Your task to perform on an android device: Go to eBay Image 0: 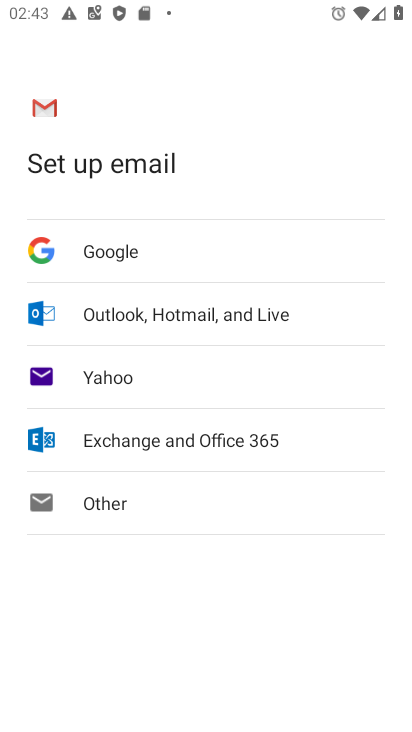
Step 0: press home button
Your task to perform on an android device: Go to eBay Image 1: 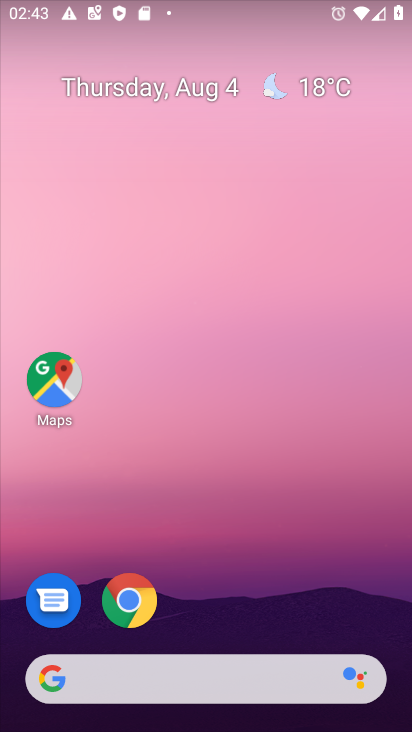
Step 1: click (132, 608)
Your task to perform on an android device: Go to eBay Image 2: 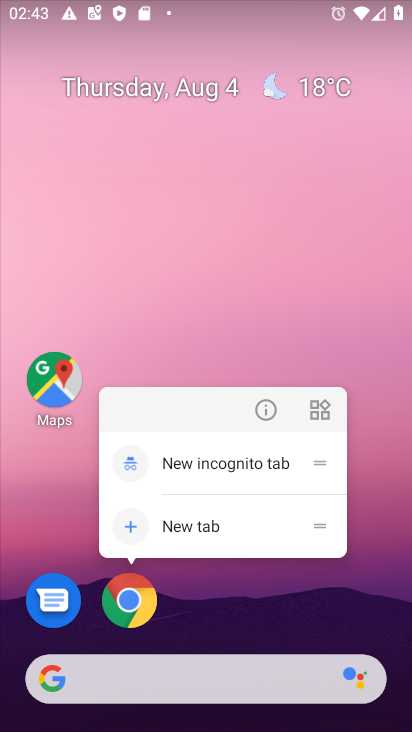
Step 2: click (128, 601)
Your task to perform on an android device: Go to eBay Image 3: 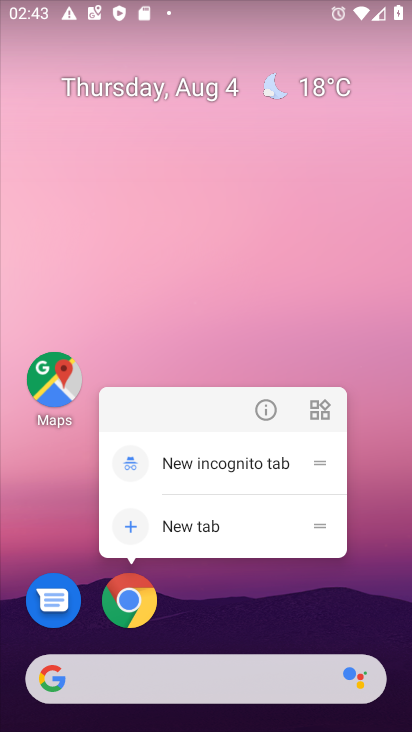
Step 3: click (131, 598)
Your task to perform on an android device: Go to eBay Image 4: 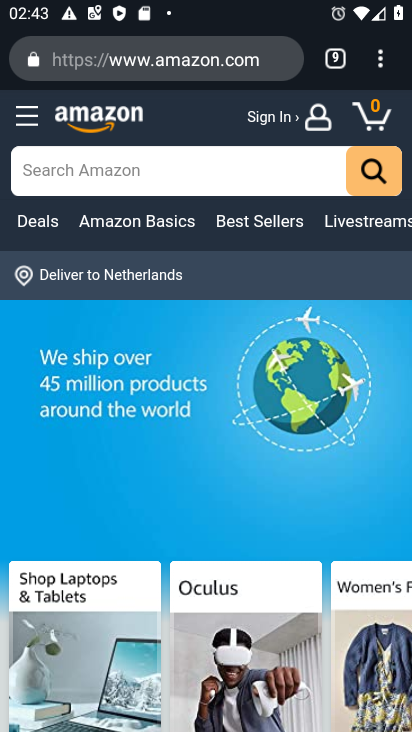
Step 4: drag from (383, 56) to (199, 188)
Your task to perform on an android device: Go to eBay Image 5: 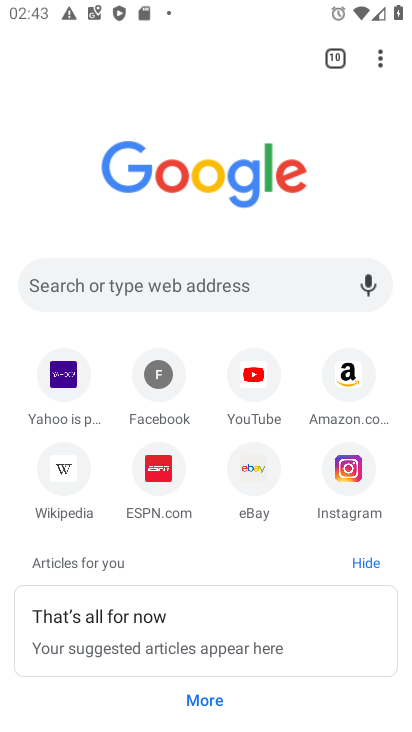
Step 5: click (269, 470)
Your task to perform on an android device: Go to eBay Image 6: 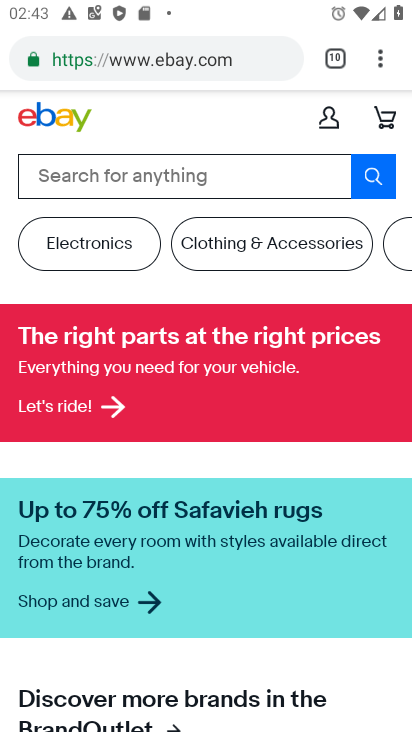
Step 6: task complete